Your task to perform on an android device: open sync settings in chrome Image 0: 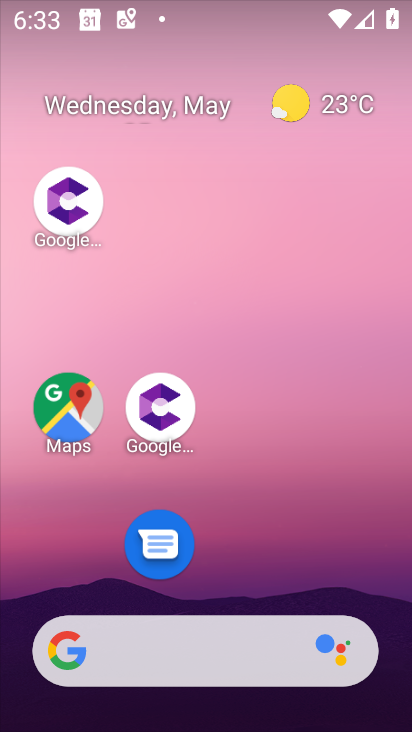
Step 0: drag from (297, 534) to (171, 31)
Your task to perform on an android device: open sync settings in chrome Image 1: 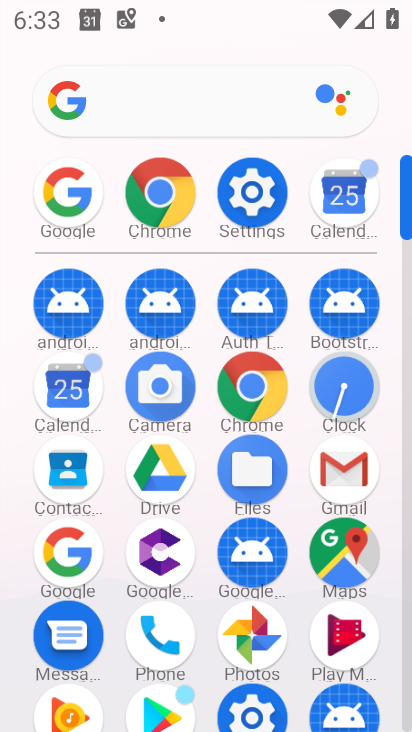
Step 1: click (159, 181)
Your task to perform on an android device: open sync settings in chrome Image 2: 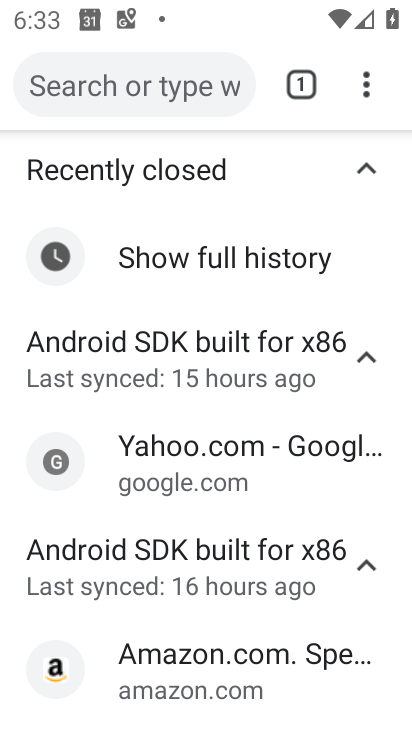
Step 2: click (369, 89)
Your task to perform on an android device: open sync settings in chrome Image 3: 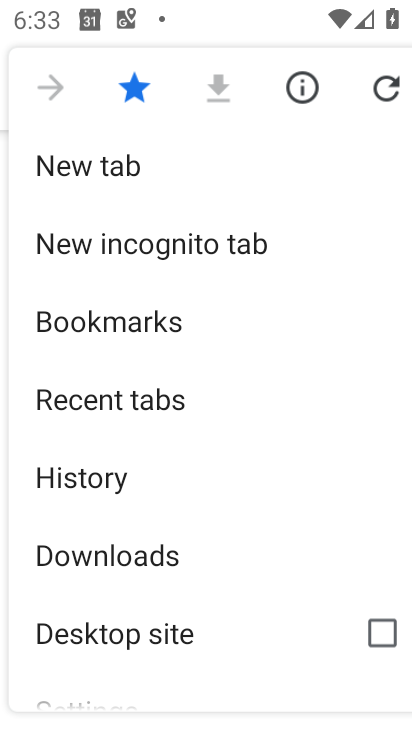
Step 3: drag from (234, 563) to (187, 246)
Your task to perform on an android device: open sync settings in chrome Image 4: 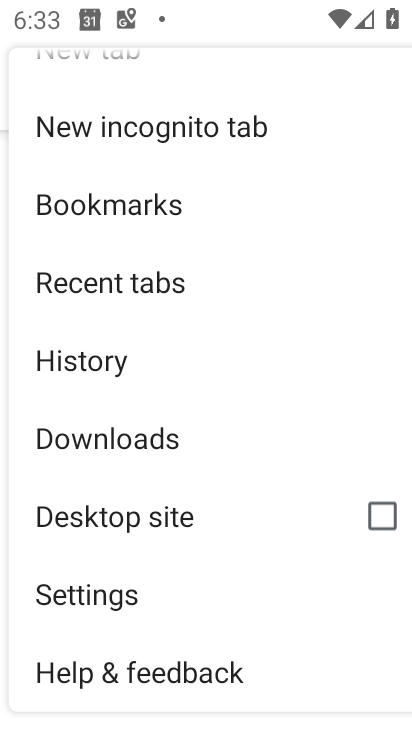
Step 4: click (114, 587)
Your task to perform on an android device: open sync settings in chrome Image 5: 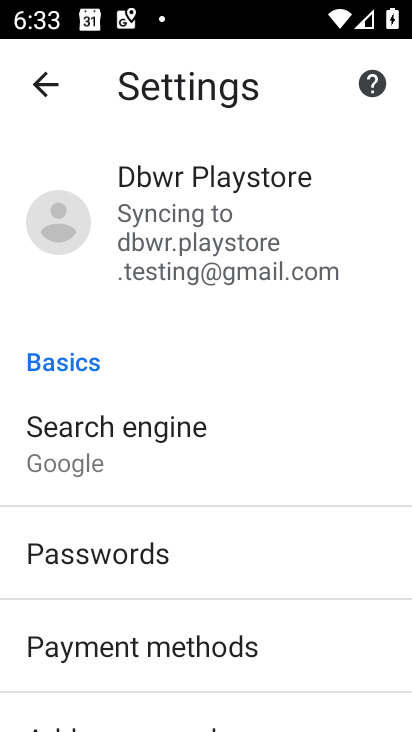
Step 5: click (195, 213)
Your task to perform on an android device: open sync settings in chrome Image 6: 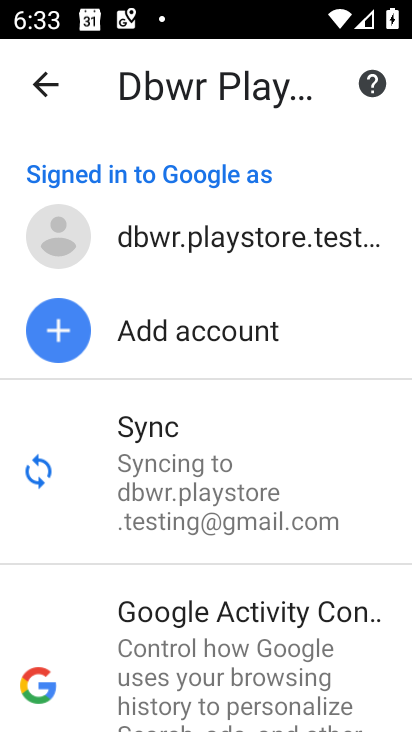
Step 6: click (143, 449)
Your task to perform on an android device: open sync settings in chrome Image 7: 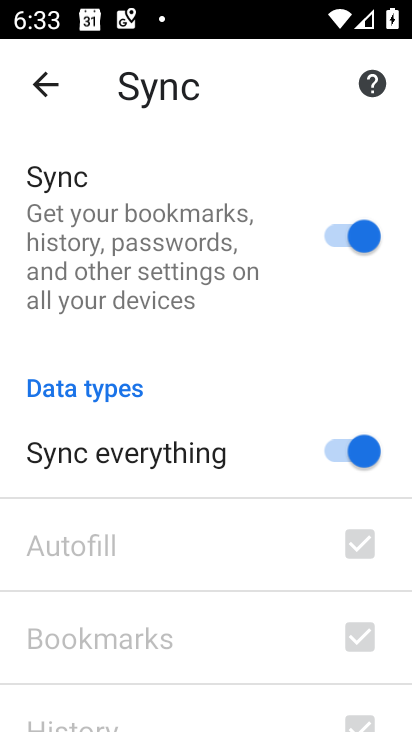
Step 7: task complete